Your task to perform on an android device: Check the settings for the Amazon Alexa app Image 0: 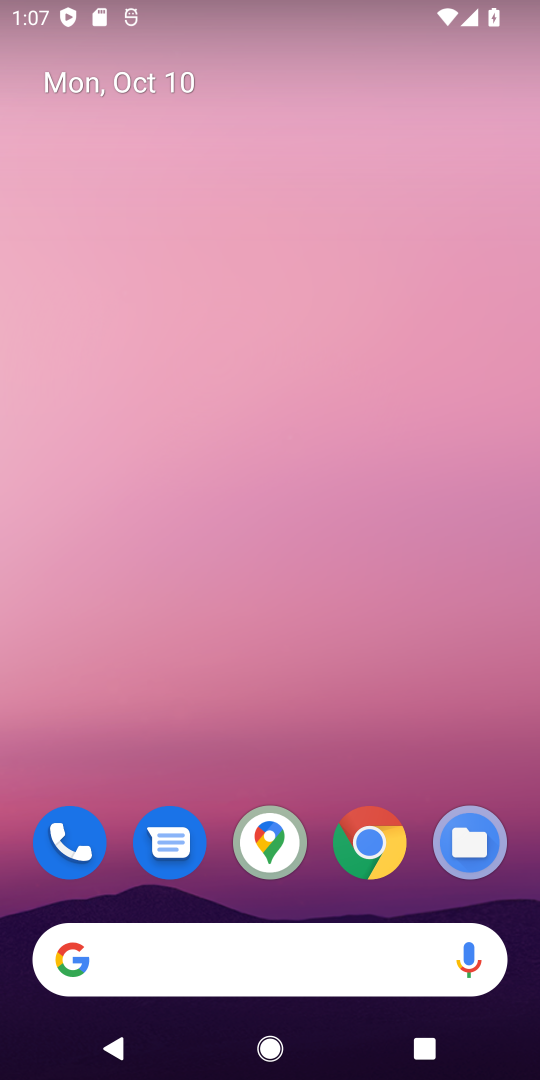
Step 0: drag from (356, 1039) to (350, 554)
Your task to perform on an android device: Check the settings for the Amazon Alexa app Image 1: 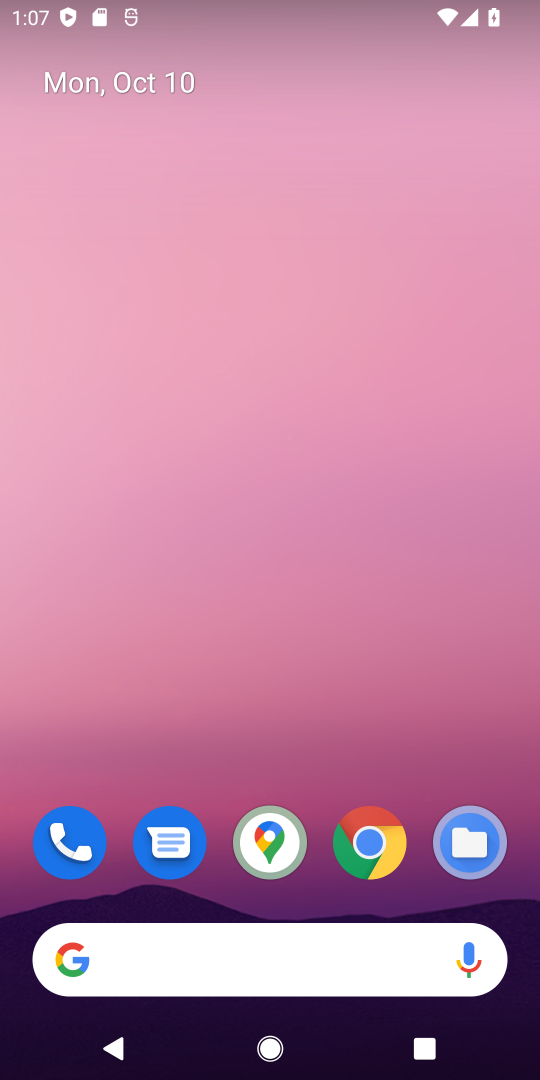
Step 1: task complete